Your task to perform on an android device: Open wifi settings Image 0: 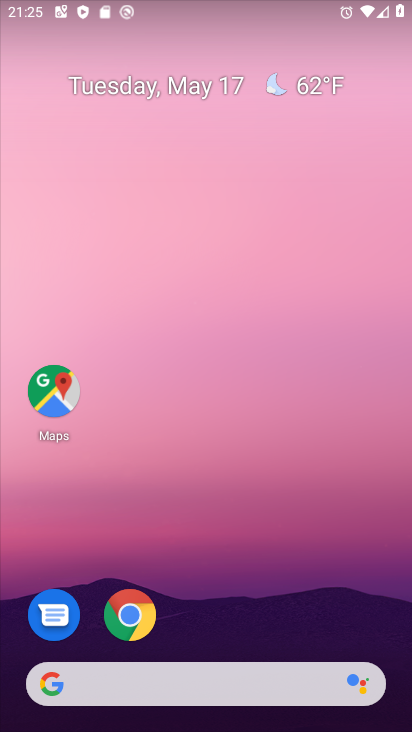
Step 0: drag from (166, 7) to (82, 489)
Your task to perform on an android device: Open wifi settings Image 1: 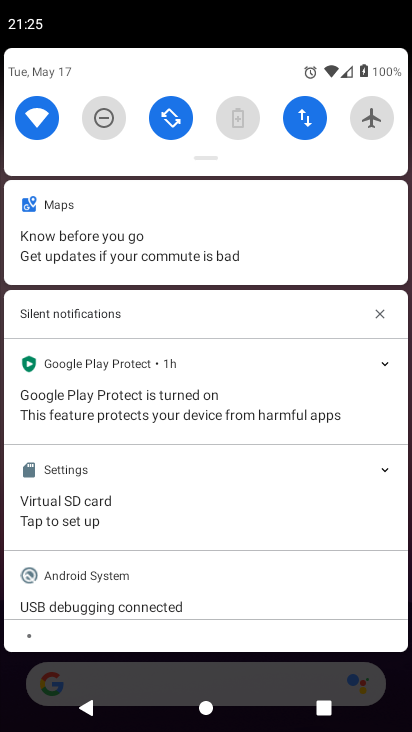
Step 1: click (25, 109)
Your task to perform on an android device: Open wifi settings Image 2: 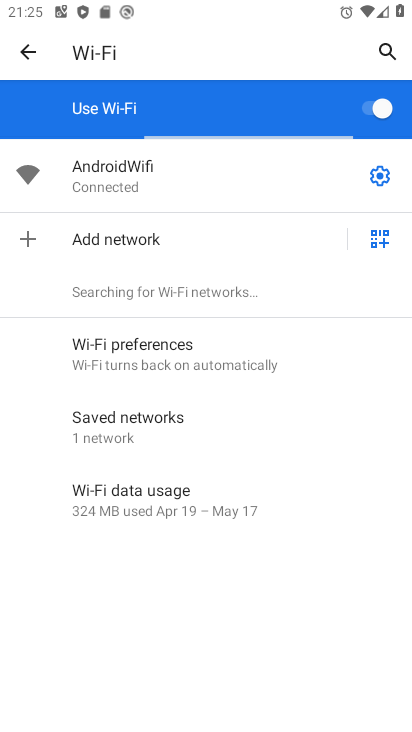
Step 2: task complete